Your task to perform on an android device: Go to location settings Image 0: 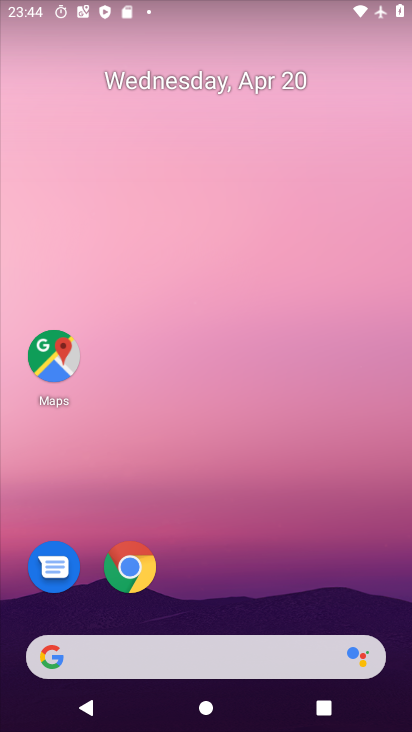
Step 0: drag from (237, 350) to (308, 113)
Your task to perform on an android device: Go to location settings Image 1: 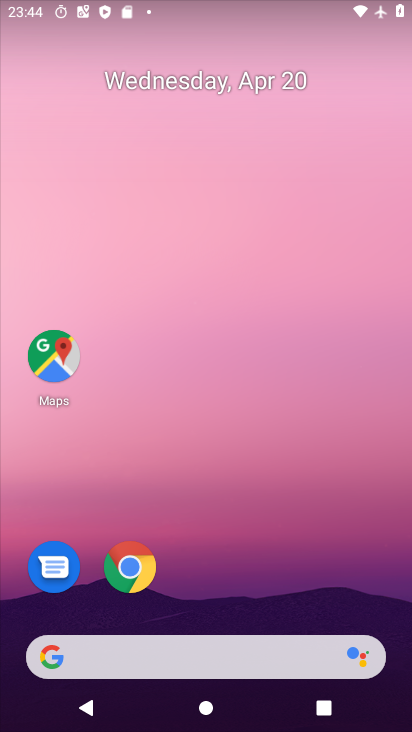
Step 1: drag from (187, 663) to (270, 350)
Your task to perform on an android device: Go to location settings Image 2: 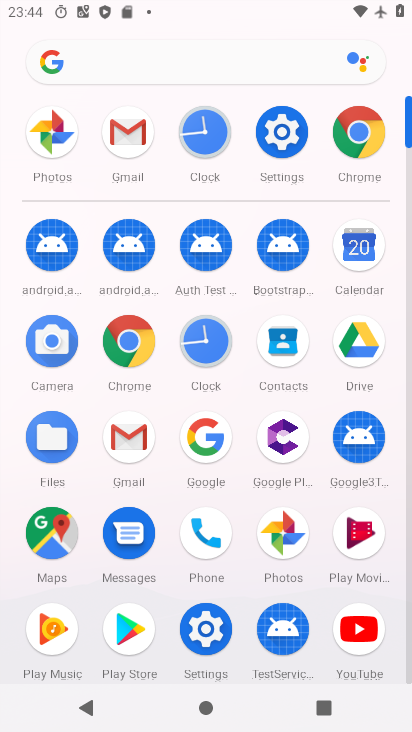
Step 2: click (283, 129)
Your task to perform on an android device: Go to location settings Image 3: 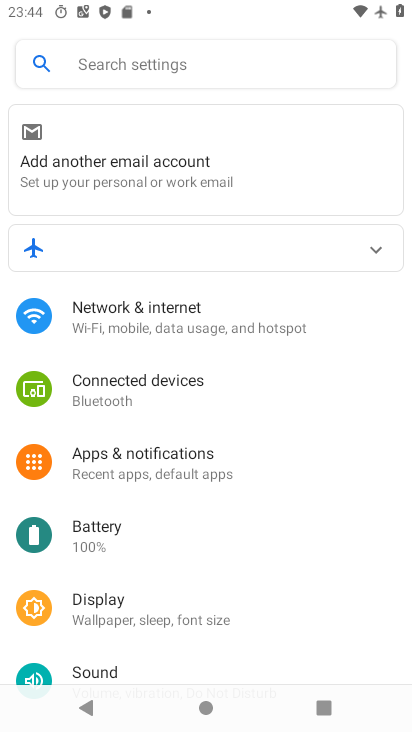
Step 3: drag from (217, 594) to (293, 130)
Your task to perform on an android device: Go to location settings Image 4: 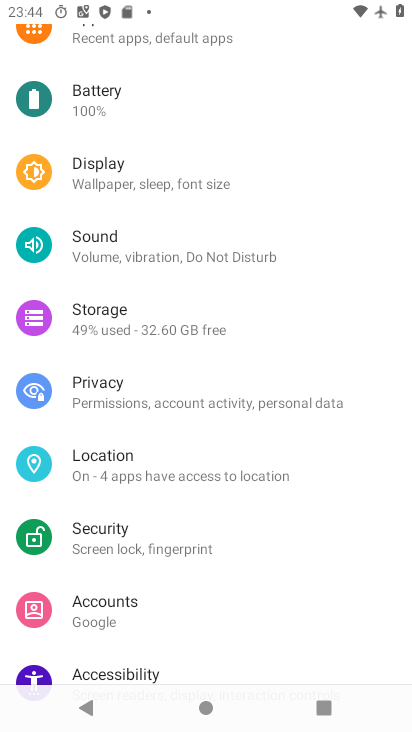
Step 4: click (169, 460)
Your task to perform on an android device: Go to location settings Image 5: 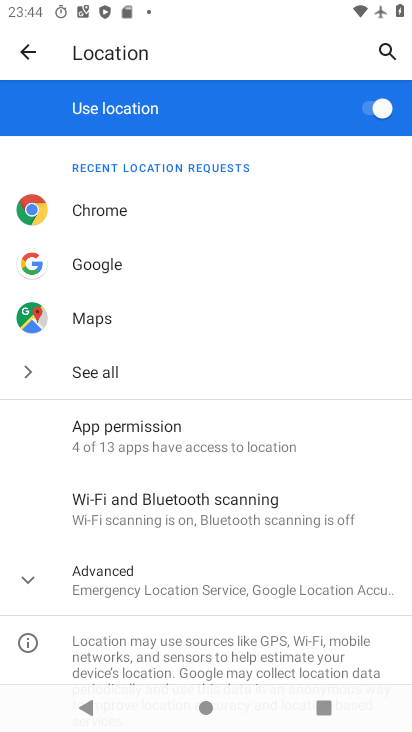
Step 5: drag from (207, 556) to (299, 282)
Your task to perform on an android device: Go to location settings Image 6: 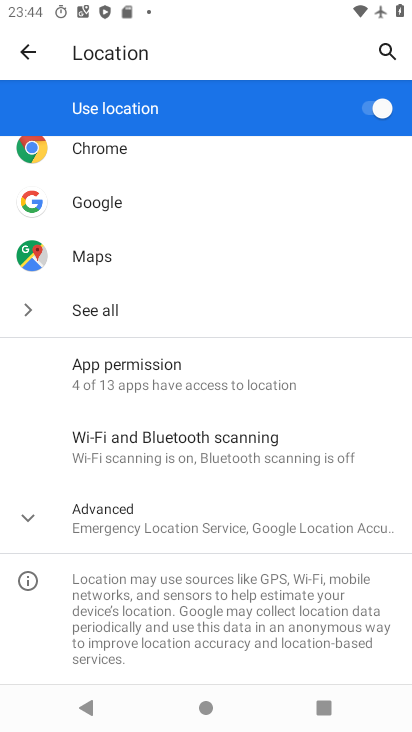
Step 6: click (225, 530)
Your task to perform on an android device: Go to location settings Image 7: 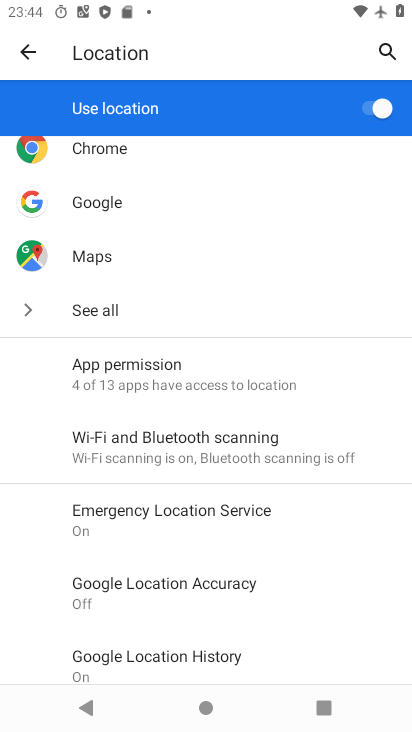
Step 7: task complete